Your task to perform on an android device: delete the emails in spam in the gmail app Image 0: 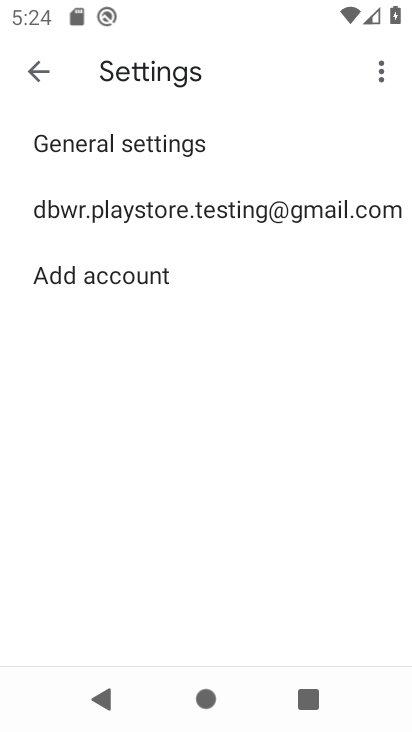
Step 0: press home button
Your task to perform on an android device: delete the emails in spam in the gmail app Image 1: 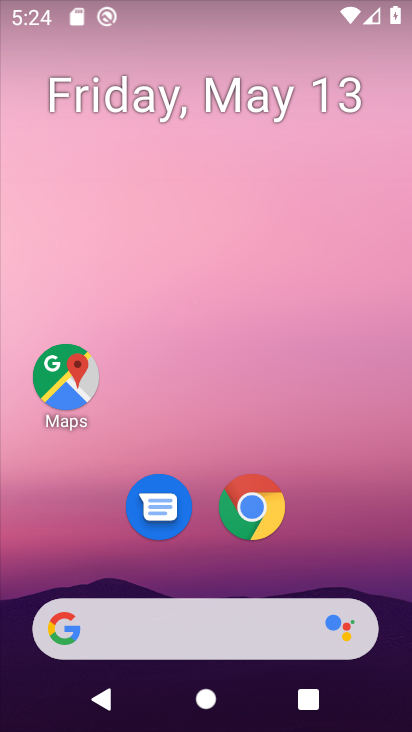
Step 1: drag from (337, 561) to (221, 113)
Your task to perform on an android device: delete the emails in spam in the gmail app Image 2: 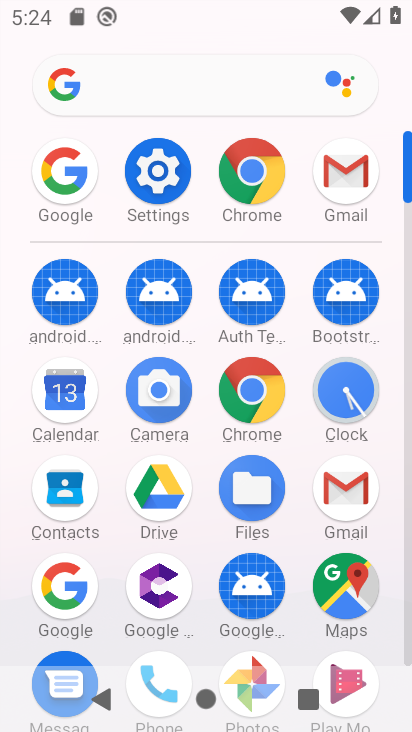
Step 2: click (349, 485)
Your task to perform on an android device: delete the emails in spam in the gmail app Image 3: 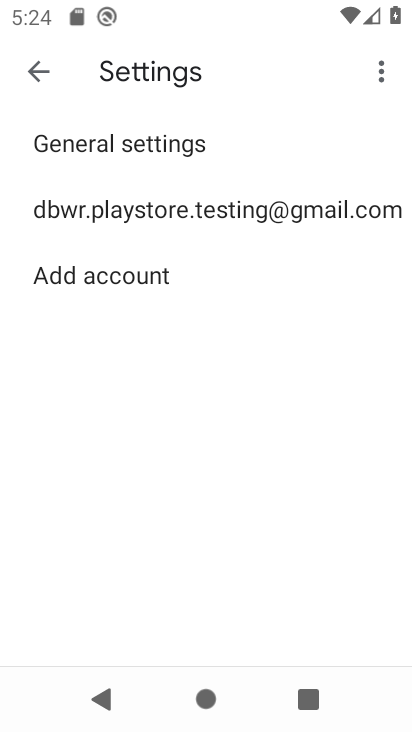
Step 3: press home button
Your task to perform on an android device: delete the emails in spam in the gmail app Image 4: 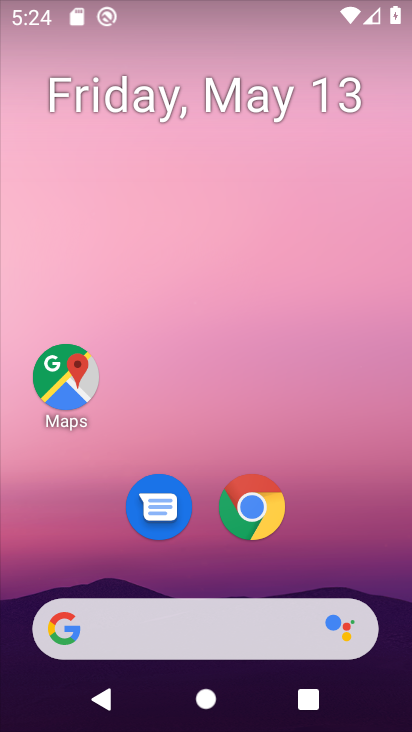
Step 4: drag from (326, 556) to (185, 102)
Your task to perform on an android device: delete the emails in spam in the gmail app Image 5: 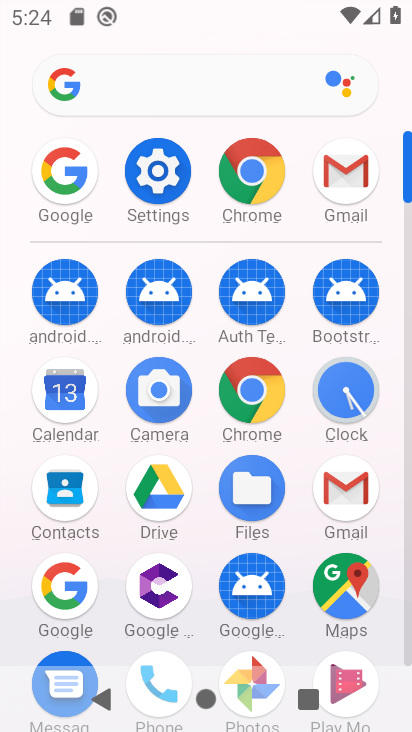
Step 5: click (346, 176)
Your task to perform on an android device: delete the emails in spam in the gmail app Image 6: 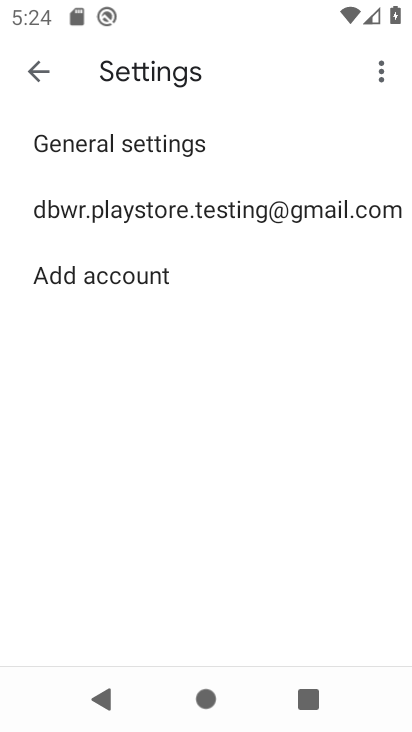
Step 6: click (36, 75)
Your task to perform on an android device: delete the emails in spam in the gmail app Image 7: 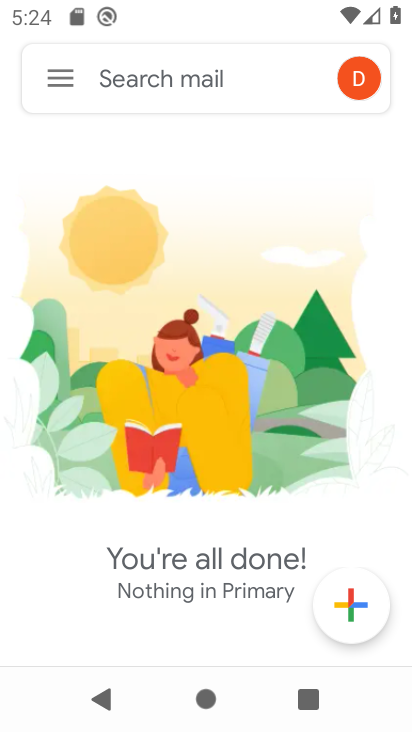
Step 7: click (69, 77)
Your task to perform on an android device: delete the emails in spam in the gmail app Image 8: 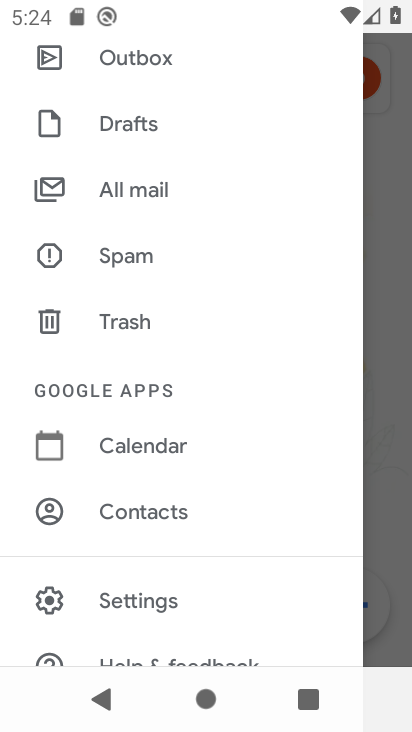
Step 8: click (131, 260)
Your task to perform on an android device: delete the emails in spam in the gmail app Image 9: 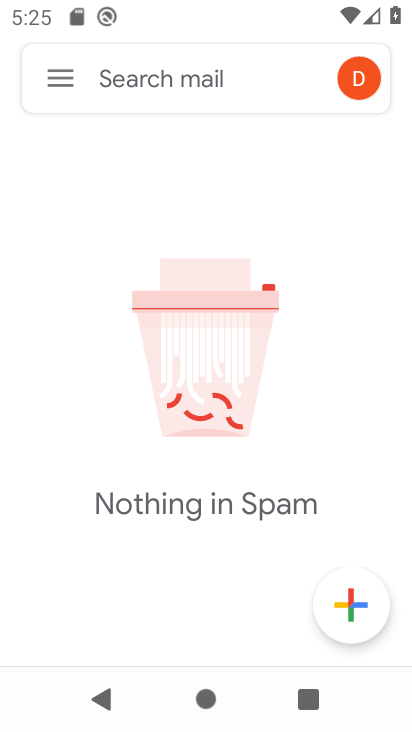
Step 9: task complete